Your task to perform on an android device: change keyboard looks Image 0: 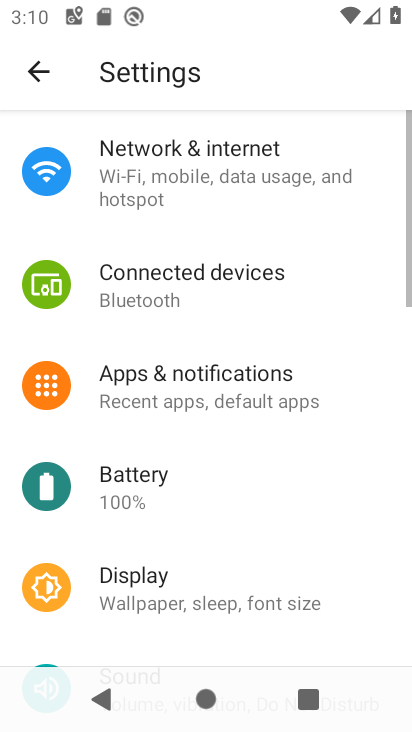
Step 0: drag from (169, 558) to (233, 140)
Your task to perform on an android device: change keyboard looks Image 1: 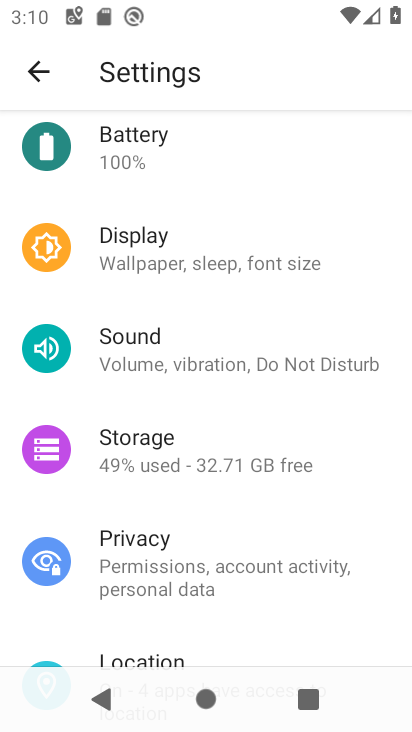
Step 1: drag from (192, 568) to (247, 268)
Your task to perform on an android device: change keyboard looks Image 2: 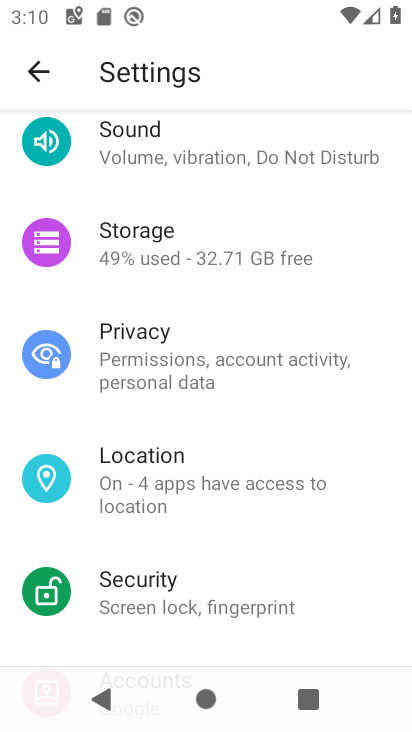
Step 2: drag from (196, 589) to (310, 159)
Your task to perform on an android device: change keyboard looks Image 3: 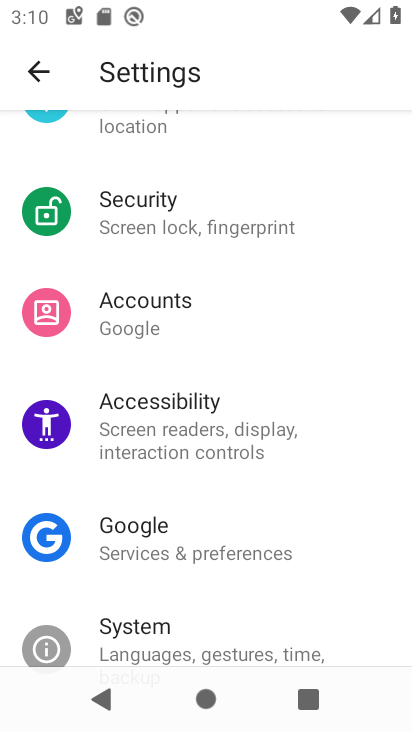
Step 3: click (168, 619)
Your task to perform on an android device: change keyboard looks Image 4: 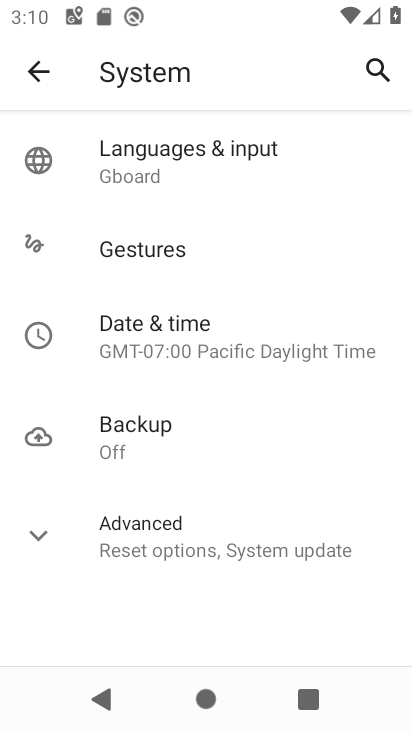
Step 4: click (165, 147)
Your task to perform on an android device: change keyboard looks Image 5: 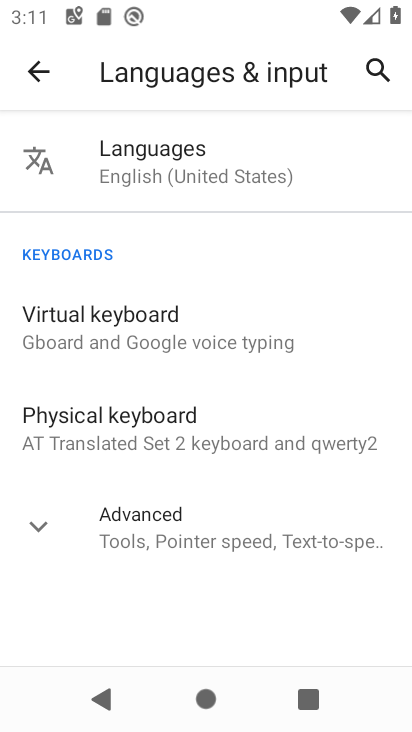
Step 5: click (105, 334)
Your task to perform on an android device: change keyboard looks Image 6: 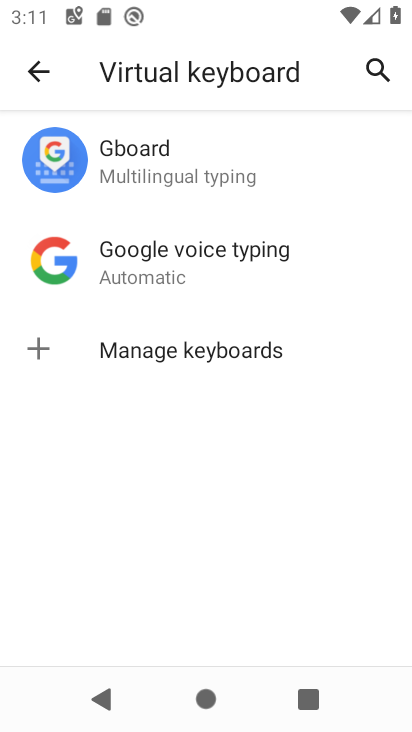
Step 6: click (165, 185)
Your task to perform on an android device: change keyboard looks Image 7: 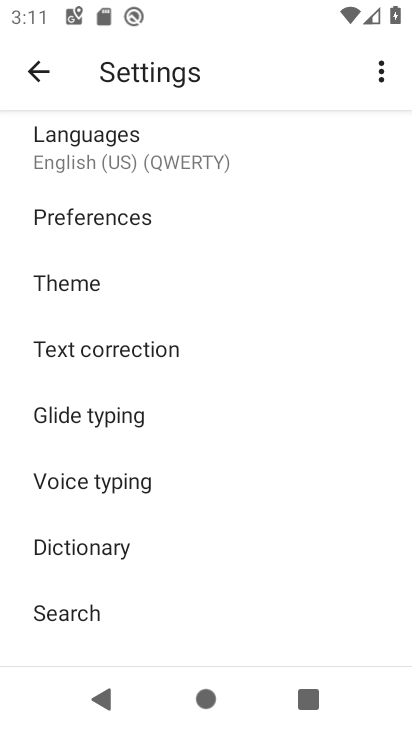
Step 7: click (69, 278)
Your task to perform on an android device: change keyboard looks Image 8: 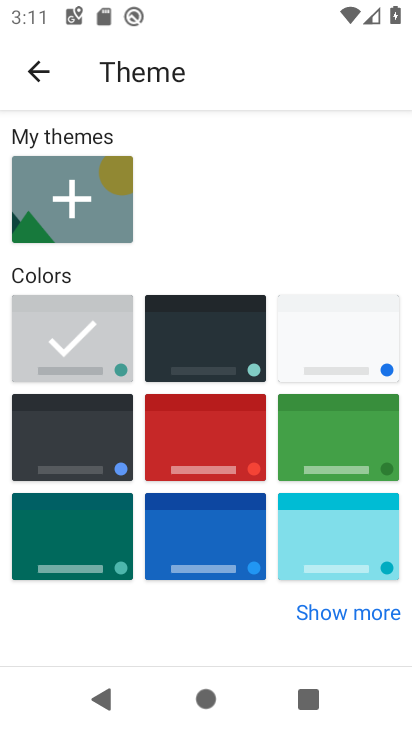
Step 8: click (338, 463)
Your task to perform on an android device: change keyboard looks Image 9: 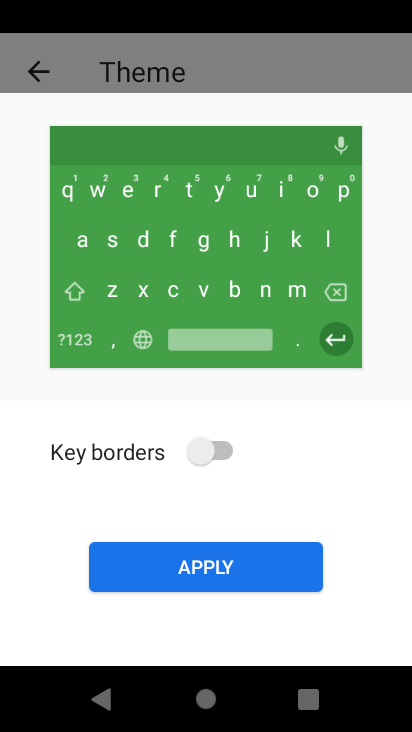
Step 9: click (187, 586)
Your task to perform on an android device: change keyboard looks Image 10: 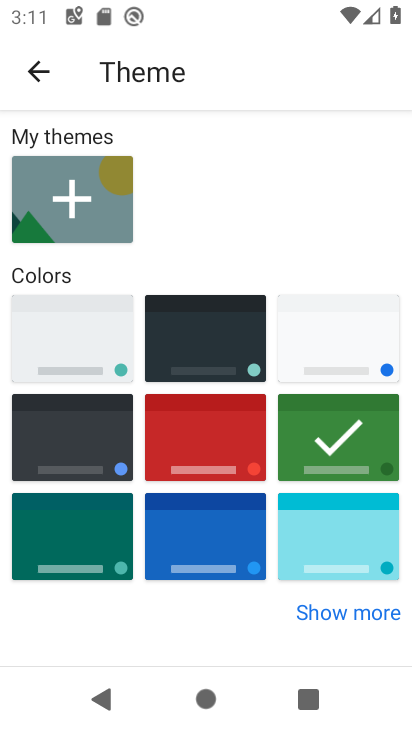
Step 10: task complete